Your task to perform on an android device: see creations saved in the google photos Image 0: 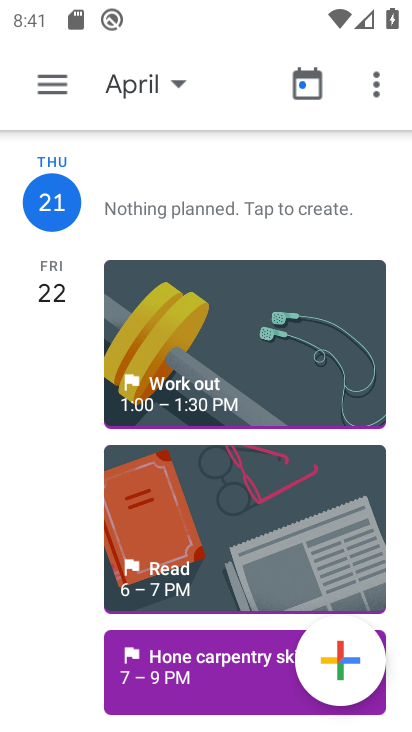
Step 0: press home button
Your task to perform on an android device: see creations saved in the google photos Image 1: 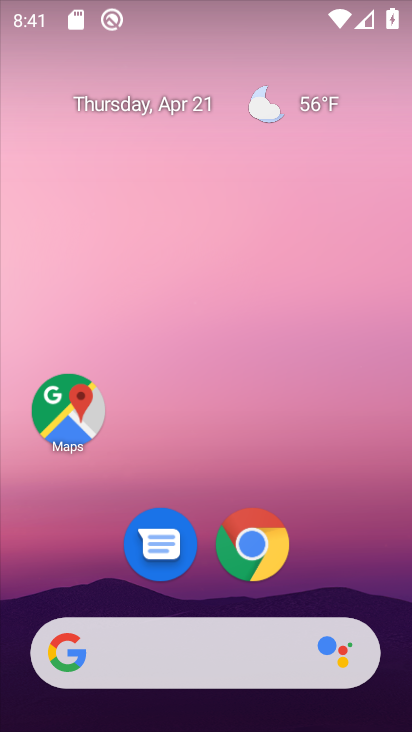
Step 1: drag from (206, 727) to (168, 173)
Your task to perform on an android device: see creations saved in the google photos Image 2: 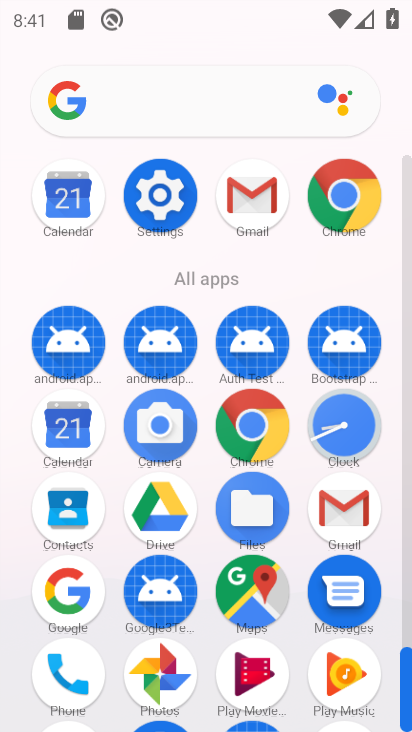
Step 2: click (167, 676)
Your task to perform on an android device: see creations saved in the google photos Image 3: 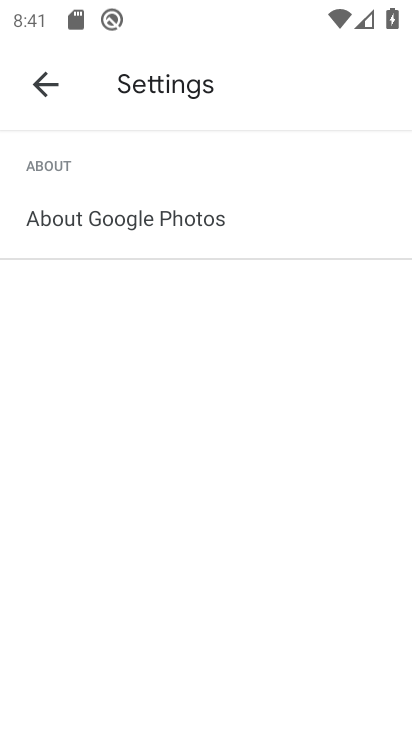
Step 3: click (44, 84)
Your task to perform on an android device: see creations saved in the google photos Image 4: 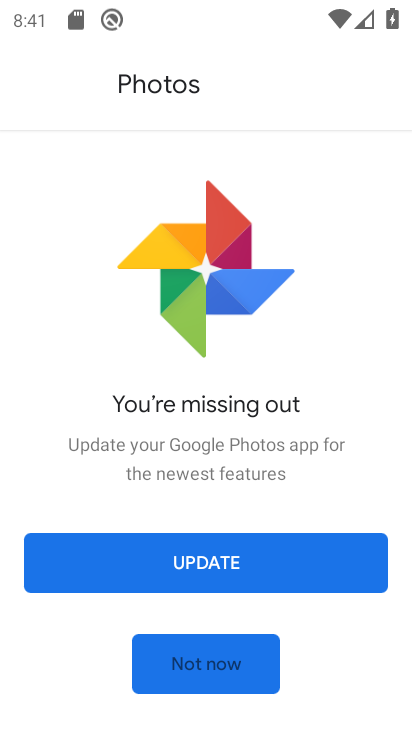
Step 4: click (216, 663)
Your task to perform on an android device: see creations saved in the google photos Image 5: 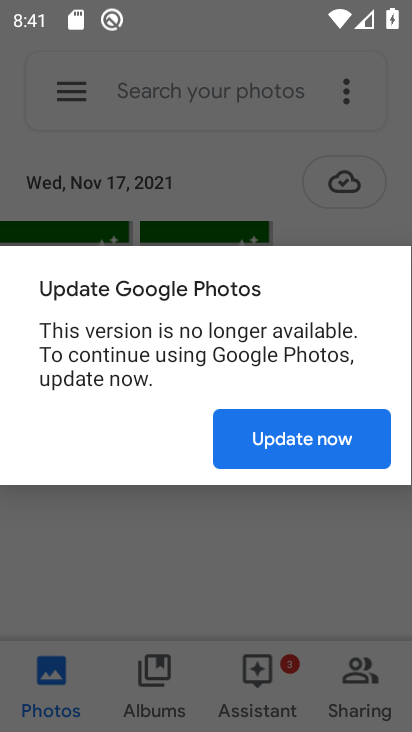
Step 5: click (279, 440)
Your task to perform on an android device: see creations saved in the google photos Image 6: 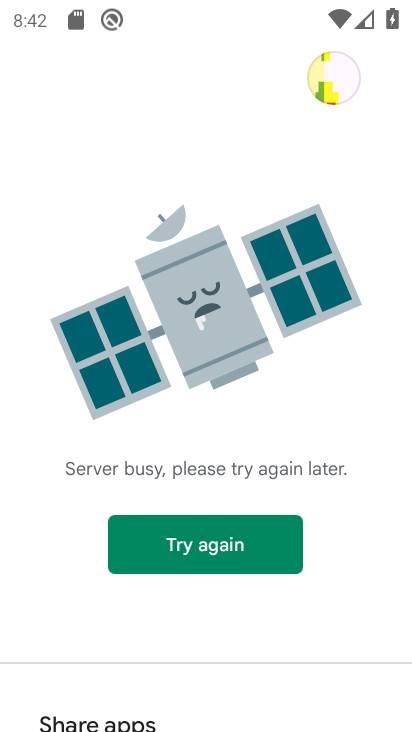
Step 6: click (195, 548)
Your task to perform on an android device: see creations saved in the google photos Image 7: 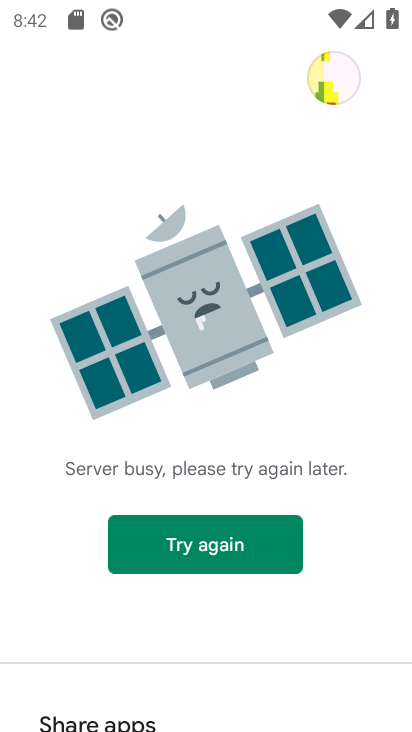
Step 7: task complete